Your task to perform on an android device: Go to sound settings Image 0: 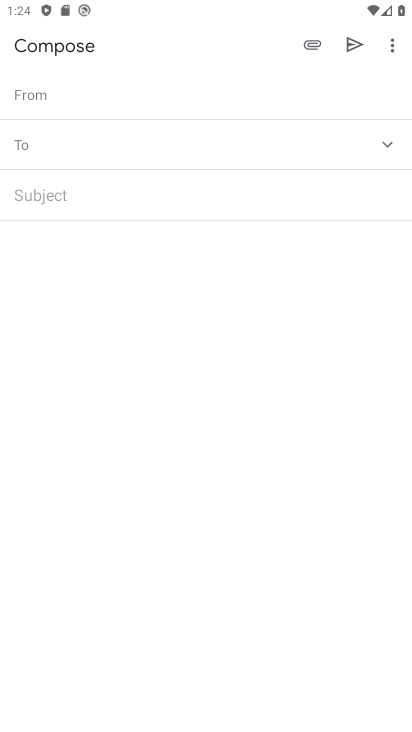
Step 0: click (216, 636)
Your task to perform on an android device: Go to sound settings Image 1: 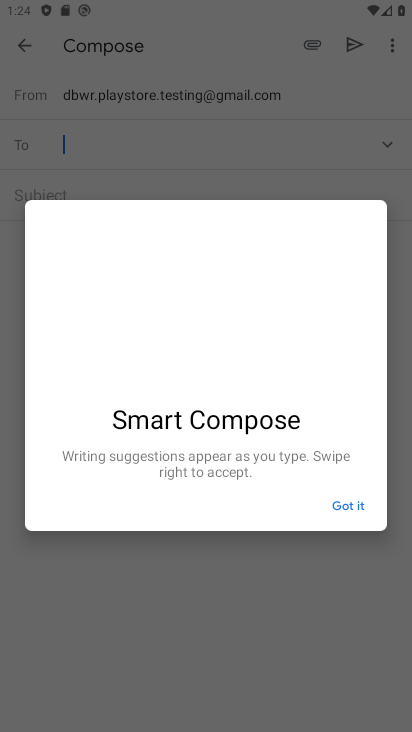
Step 1: press home button
Your task to perform on an android device: Go to sound settings Image 2: 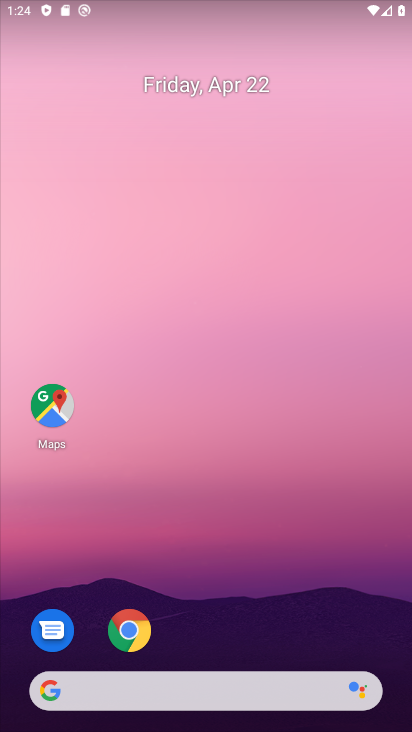
Step 2: drag from (191, 397) to (223, 56)
Your task to perform on an android device: Go to sound settings Image 3: 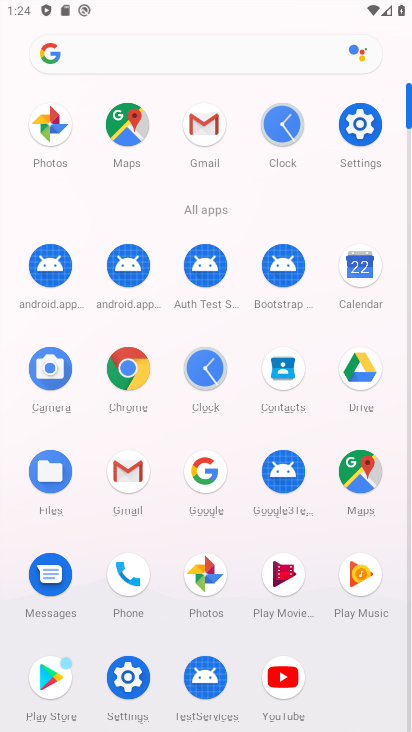
Step 3: click (361, 137)
Your task to perform on an android device: Go to sound settings Image 4: 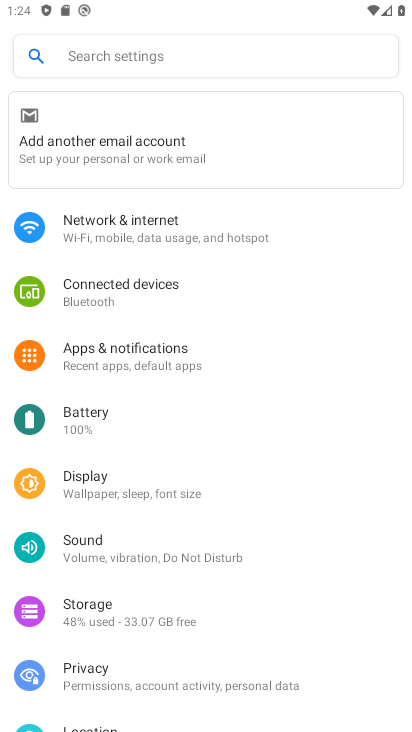
Step 4: click (118, 560)
Your task to perform on an android device: Go to sound settings Image 5: 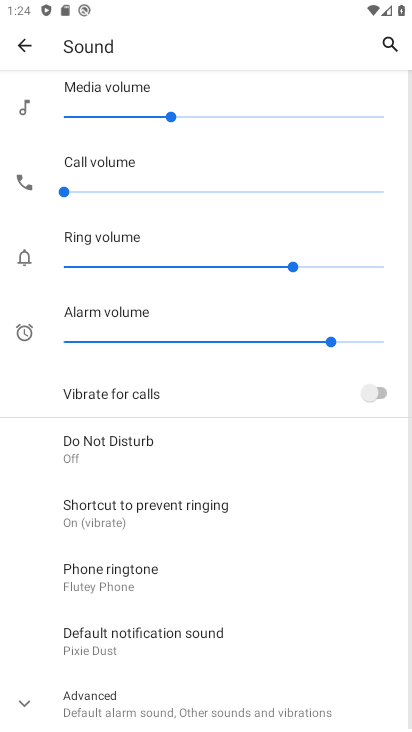
Step 5: task complete